Your task to perform on an android device: Go to calendar. Show me events next week Image 0: 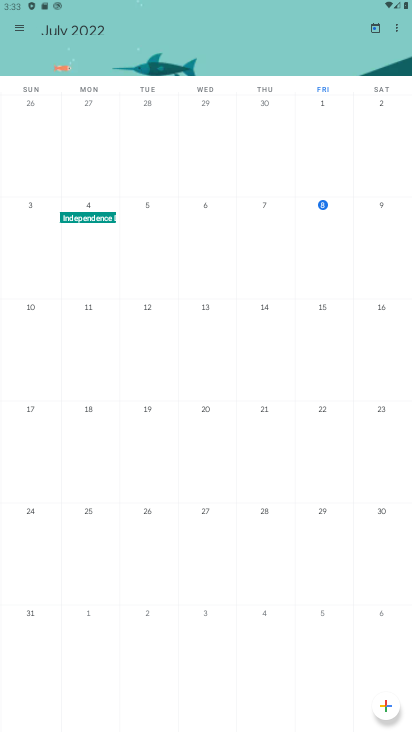
Step 0: click (22, 29)
Your task to perform on an android device: Go to calendar. Show me events next week Image 1: 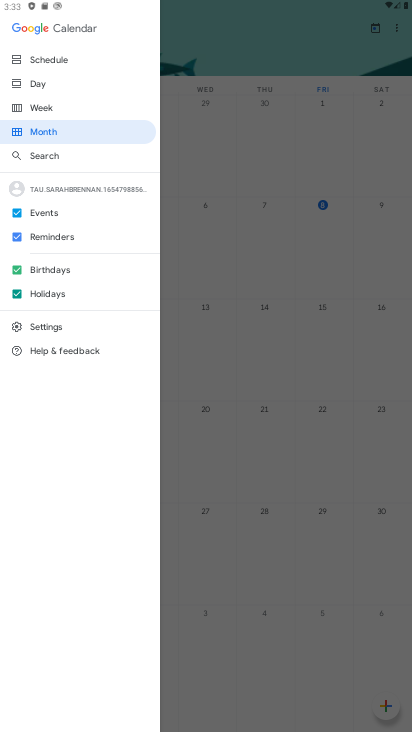
Step 1: click (16, 291)
Your task to perform on an android device: Go to calendar. Show me events next week Image 2: 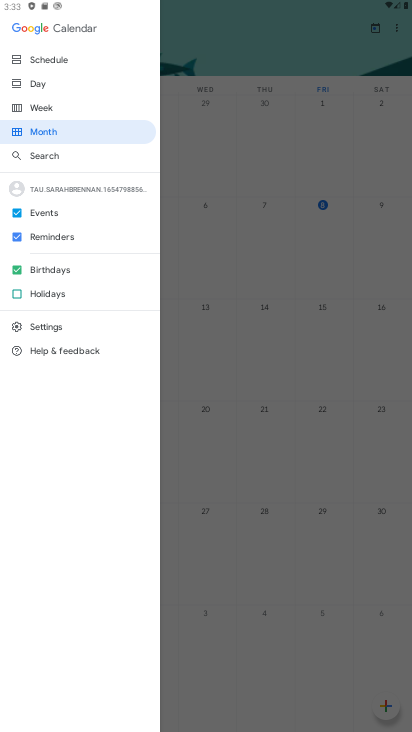
Step 2: click (16, 273)
Your task to perform on an android device: Go to calendar. Show me events next week Image 3: 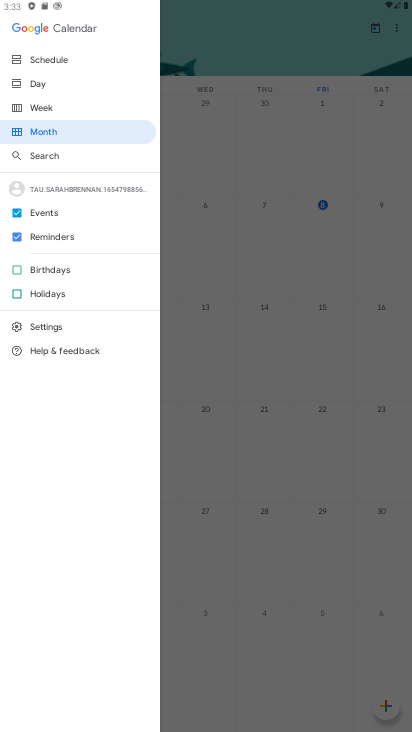
Step 3: click (17, 233)
Your task to perform on an android device: Go to calendar. Show me events next week Image 4: 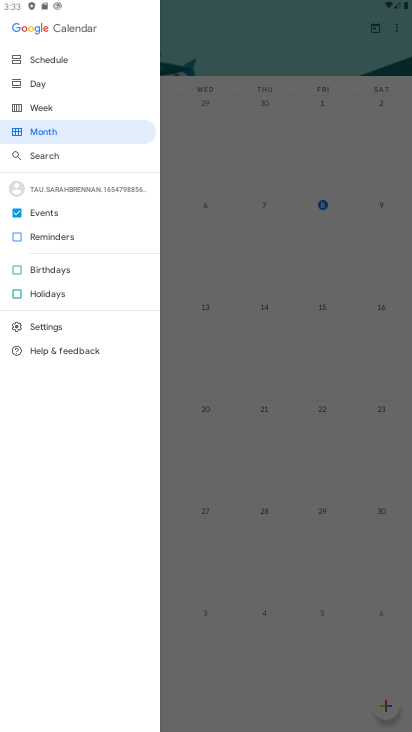
Step 4: click (26, 109)
Your task to perform on an android device: Go to calendar. Show me events next week Image 5: 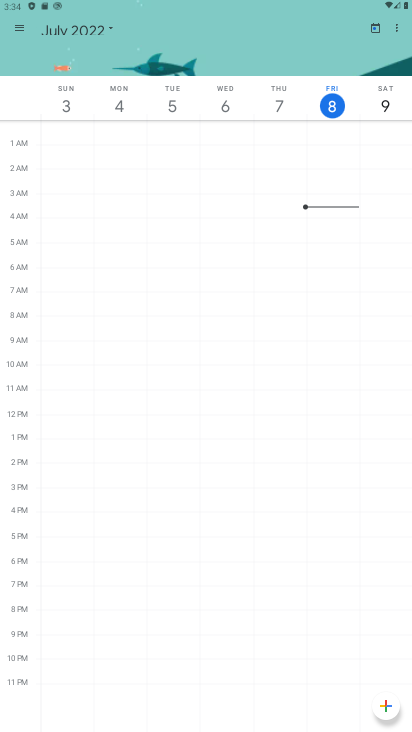
Step 5: task complete